Your task to perform on an android device: Go to calendar. Show me events next week Image 0: 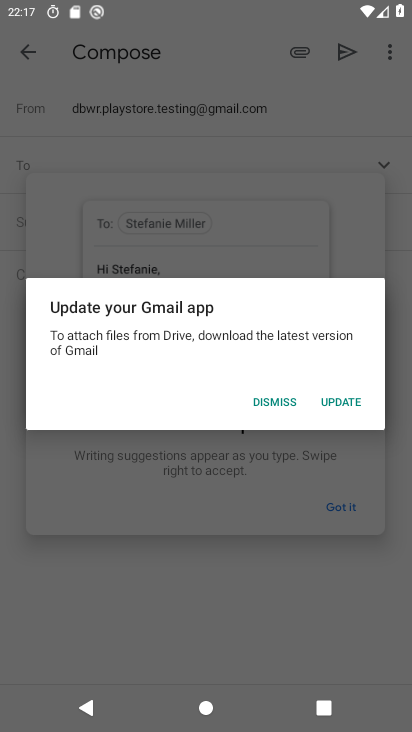
Step 0: press home button
Your task to perform on an android device: Go to calendar. Show me events next week Image 1: 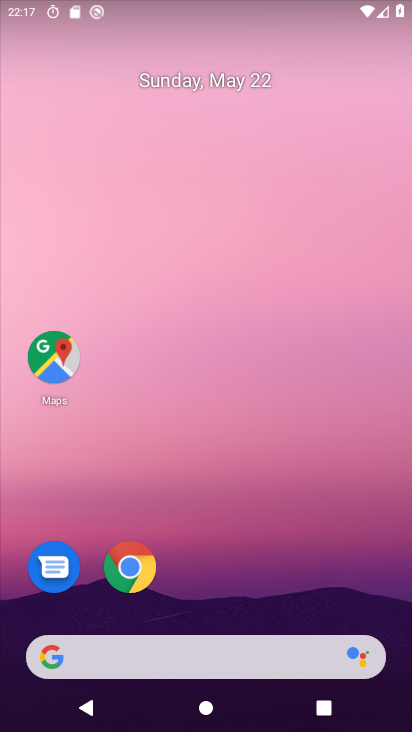
Step 1: drag from (218, 617) to (228, 92)
Your task to perform on an android device: Go to calendar. Show me events next week Image 2: 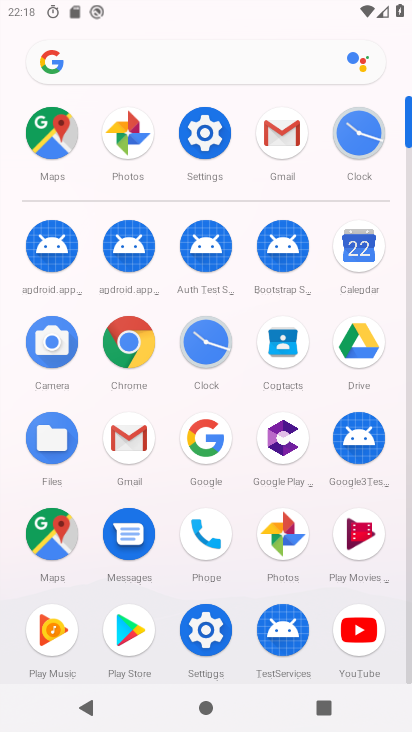
Step 2: click (351, 247)
Your task to perform on an android device: Go to calendar. Show me events next week Image 3: 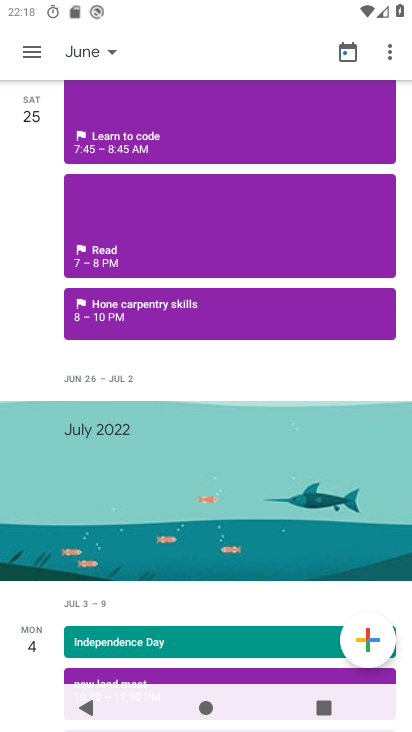
Step 3: click (29, 50)
Your task to perform on an android device: Go to calendar. Show me events next week Image 4: 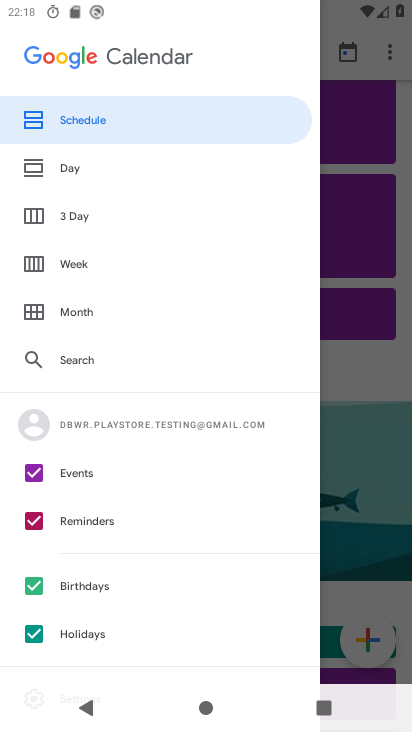
Step 4: click (64, 254)
Your task to perform on an android device: Go to calendar. Show me events next week Image 5: 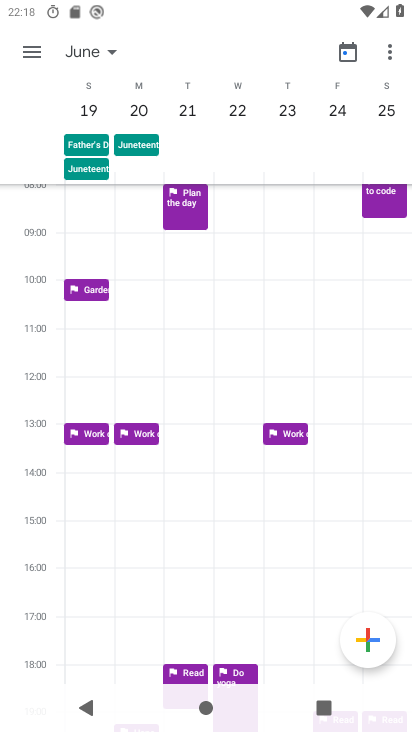
Step 5: drag from (82, 99) to (405, 103)
Your task to perform on an android device: Go to calendar. Show me events next week Image 6: 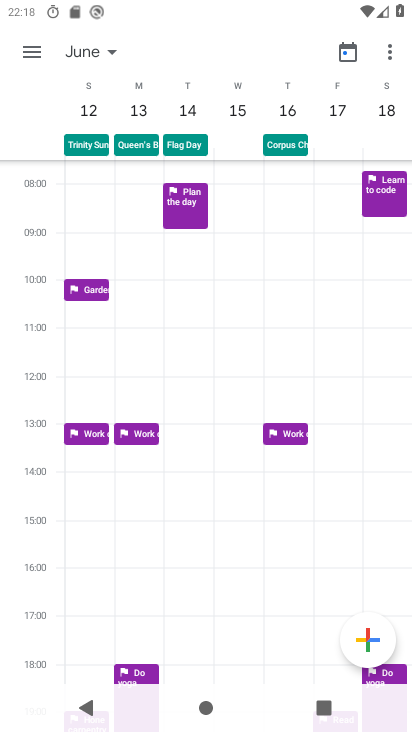
Step 6: drag from (81, 98) to (380, 104)
Your task to perform on an android device: Go to calendar. Show me events next week Image 7: 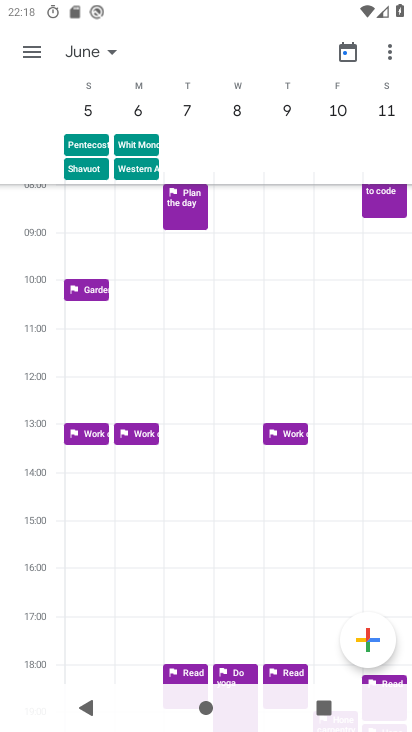
Step 7: drag from (82, 102) to (404, 99)
Your task to perform on an android device: Go to calendar. Show me events next week Image 8: 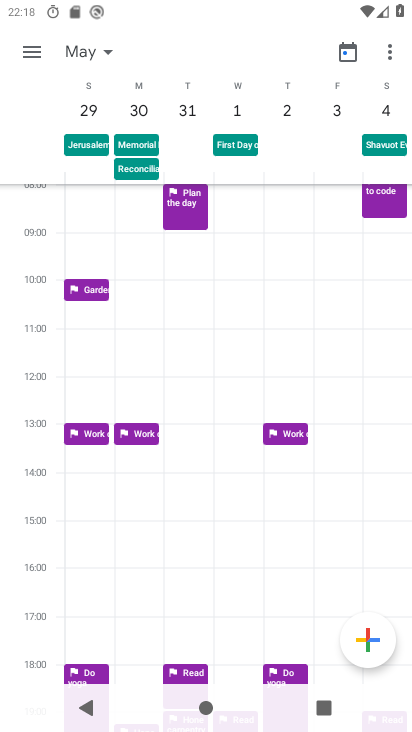
Step 8: click (81, 100)
Your task to perform on an android device: Go to calendar. Show me events next week Image 9: 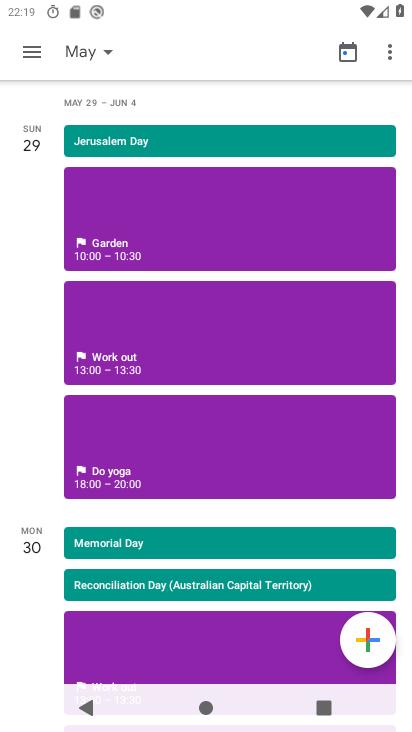
Step 9: click (28, 52)
Your task to perform on an android device: Go to calendar. Show me events next week Image 10: 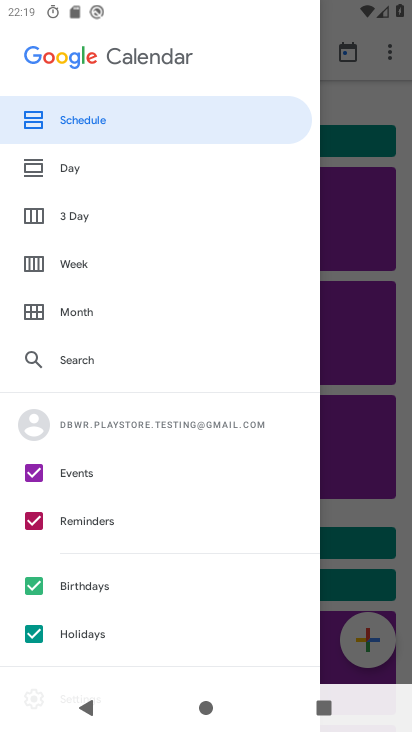
Step 10: click (23, 510)
Your task to perform on an android device: Go to calendar. Show me events next week Image 11: 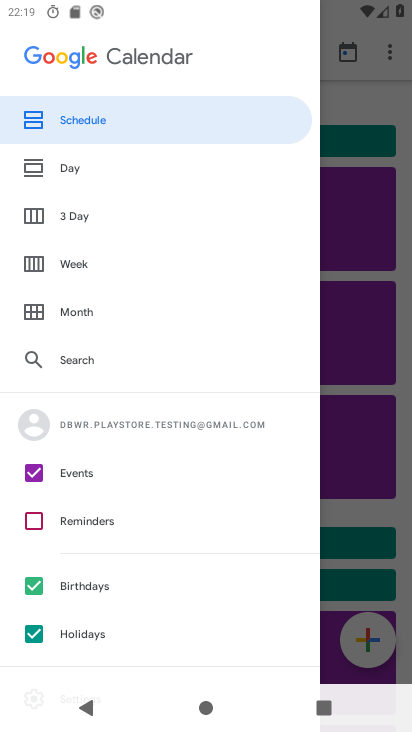
Step 11: click (34, 574)
Your task to perform on an android device: Go to calendar. Show me events next week Image 12: 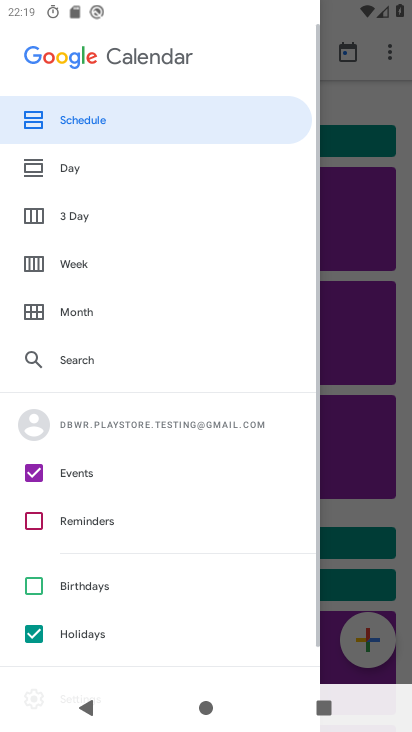
Step 12: click (32, 632)
Your task to perform on an android device: Go to calendar. Show me events next week Image 13: 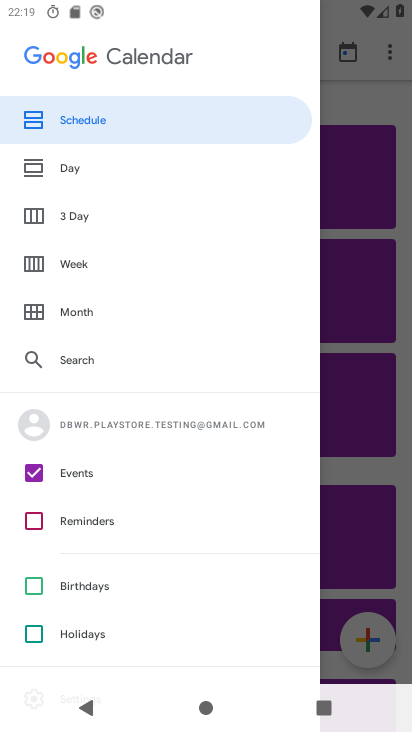
Step 13: click (26, 116)
Your task to perform on an android device: Go to calendar. Show me events next week Image 14: 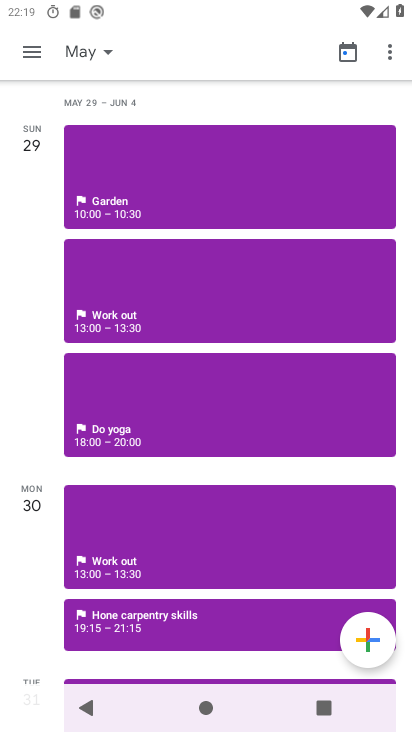
Step 14: task complete